Your task to perform on an android device: empty trash in google photos Image 0: 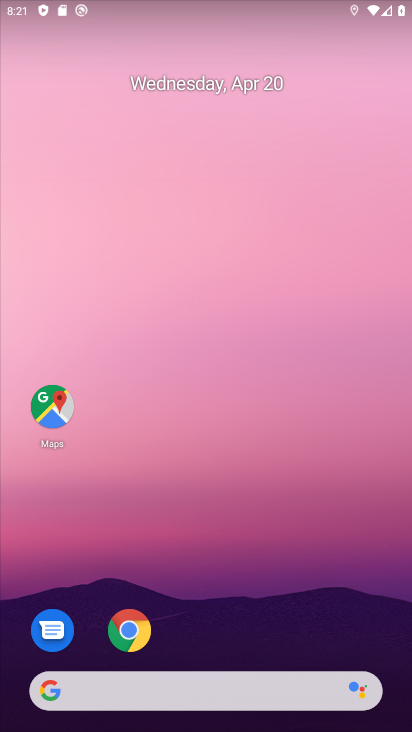
Step 0: drag from (221, 634) to (309, 29)
Your task to perform on an android device: empty trash in google photos Image 1: 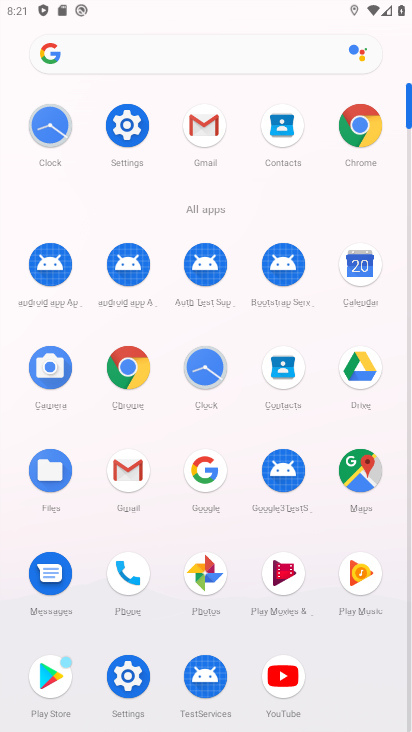
Step 1: click (201, 566)
Your task to perform on an android device: empty trash in google photos Image 2: 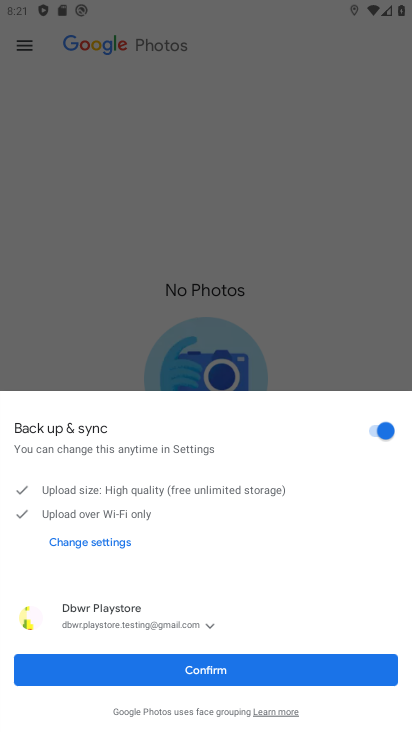
Step 2: click (194, 675)
Your task to perform on an android device: empty trash in google photos Image 3: 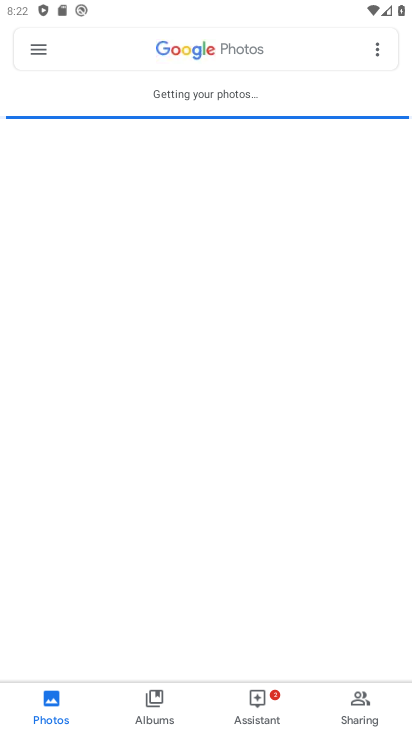
Step 3: click (36, 46)
Your task to perform on an android device: empty trash in google photos Image 4: 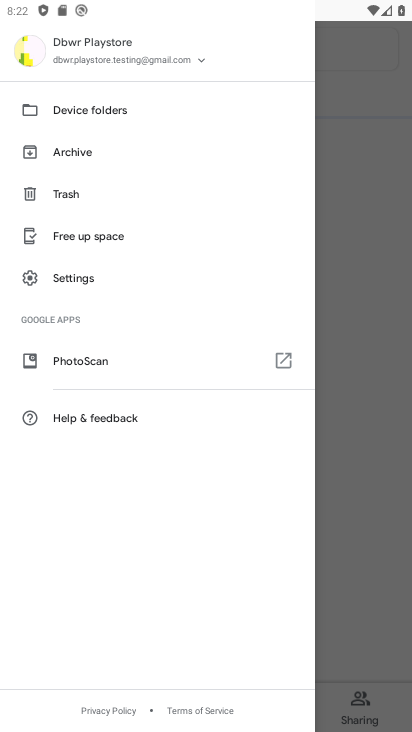
Step 4: click (68, 197)
Your task to perform on an android device: empty trash in google photos Image 5: 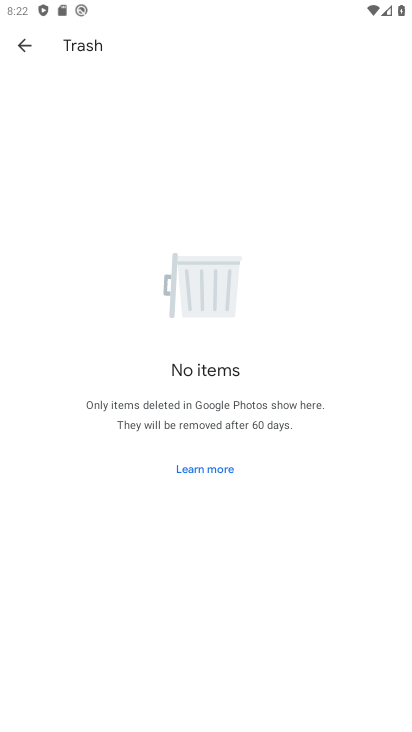
Step 5: task complete